Your task to perform on an android device: all mails in gmail Image 0: 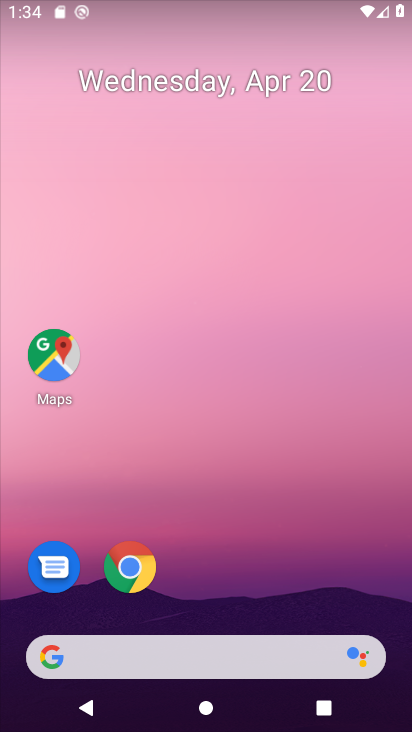
Step 0: drag from (188, 605) to (402, 174)
Your task to perform on an android device: all mails in gmail Image 1: 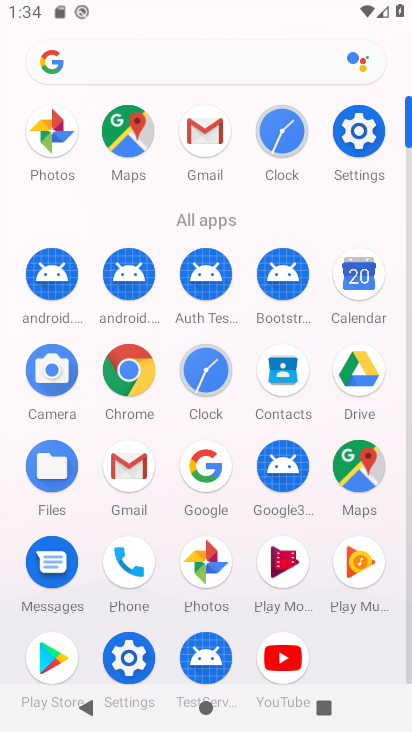
Step 1: click (131, 458)
Your task to perform on an android device: all mails in gmail Image 2: 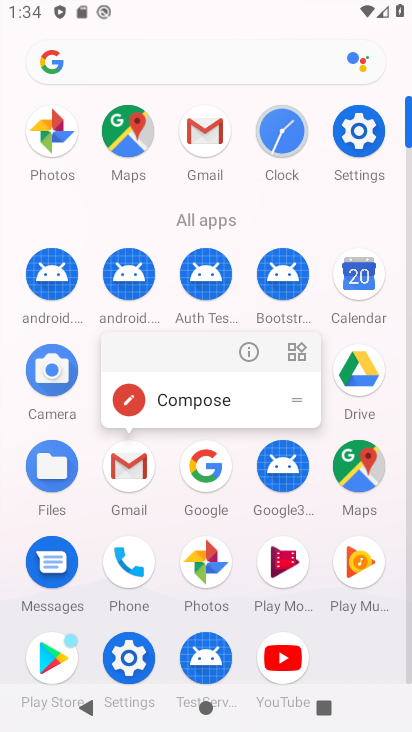
Step 2: click (248, 351)
Your task to perform on an android device: all mails in gmail Image 3: 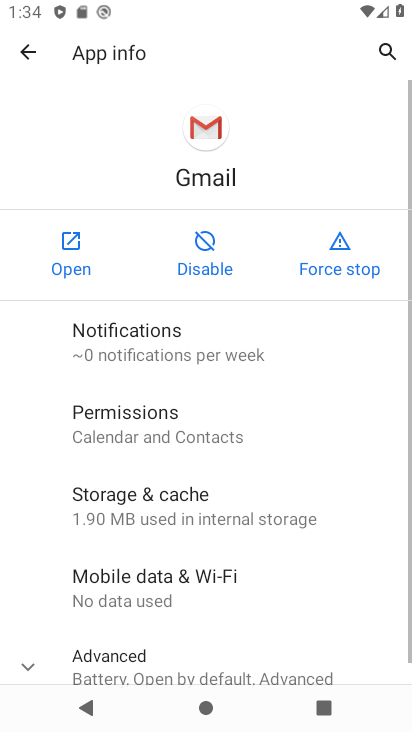
Step 3: click (80, 247)
Your task to perform on an android device: all mails in gmail Image 4: 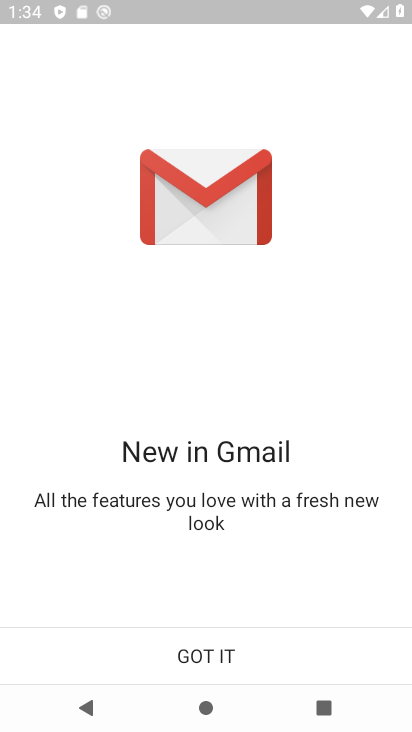
Step 4: click (248, 669)
Your task to perform on an android device: all mails in gmail Image 5: 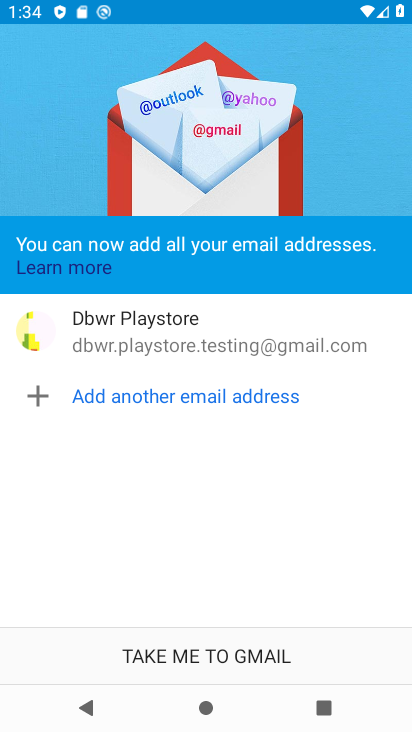
Step 5: click (246, 663)
Your task to perform on an android device: all mails in gmail Image 6: 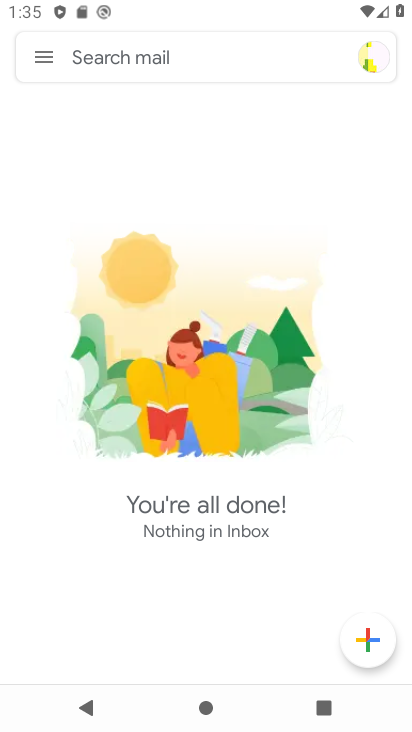
Step 6: drag from (249, 594) to (351, 231)
Your task to perform on an android device: all mails in gmail Image 7: 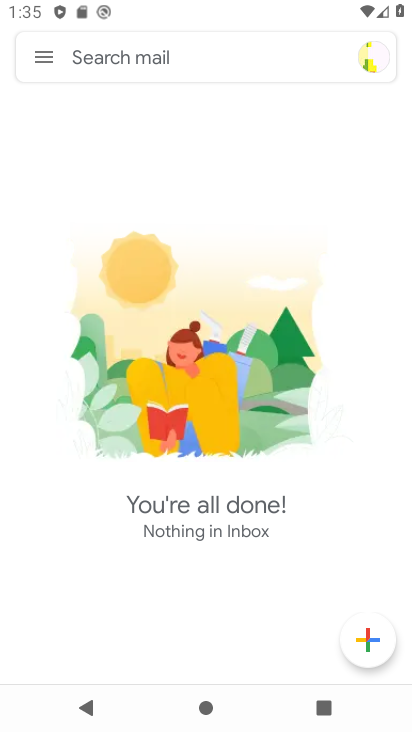
Step 7: click (37, 53)
Your task to perform on an android device: all mails in gmail Image 8: 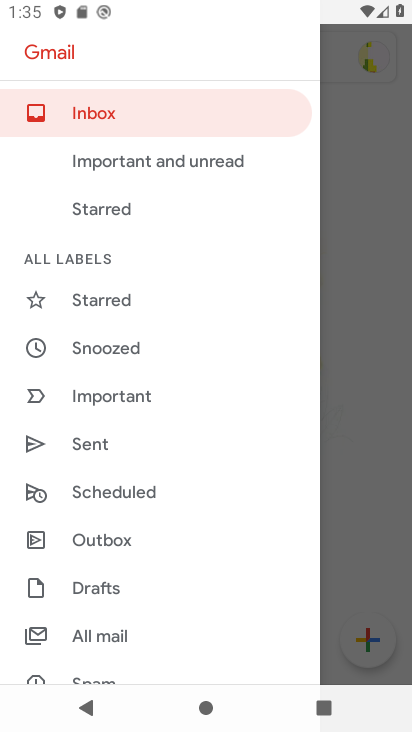
Step 8: click (75, 641)
Your task to perform on an android device: all mails in gmail Image 9: 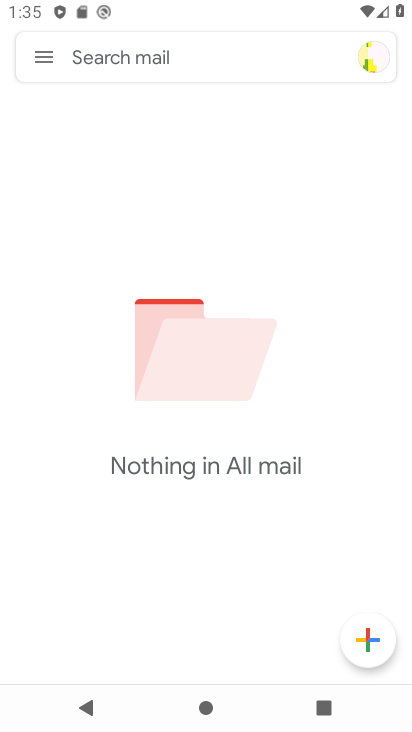
Step 9: task complete